Your task to perform on an android device: Search for Italian restaurants on Maps Image 0: 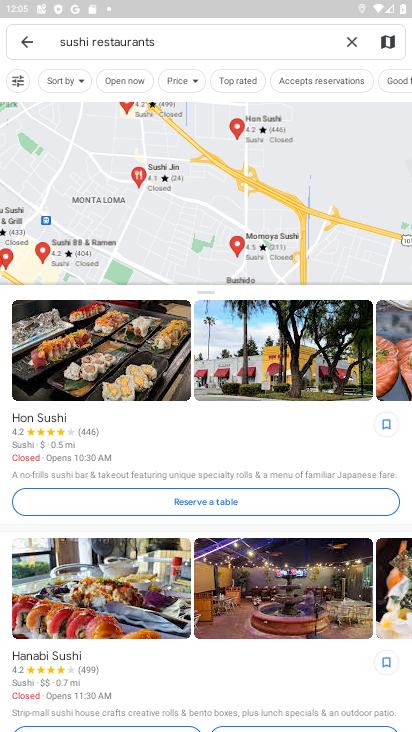
Step 0: click (355, 47)
Your task to perform on an android device: Search for Italian restaurants on Maps Image 1: 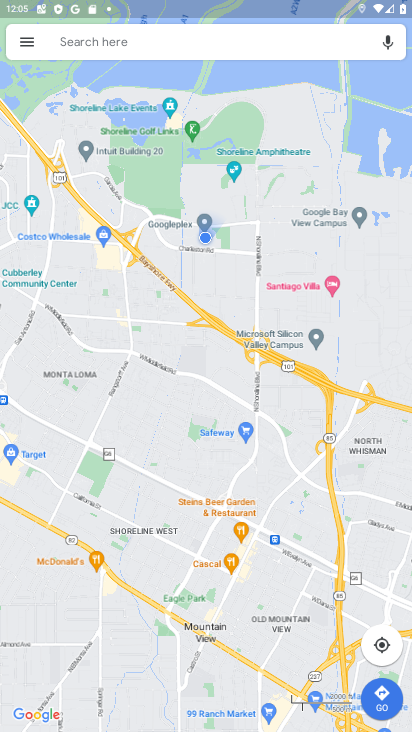
Step 1: click (107, 41)
Your task to perform on an android device: Search for Italian restaurants on Maps Image 2: 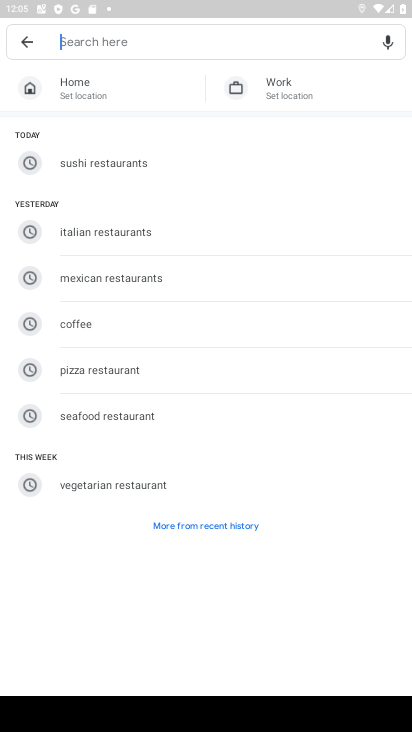
Step 2: type " Italian restaurants "
Your task to perform on an android device: Search for Italian restaurants on Maps Image 3: 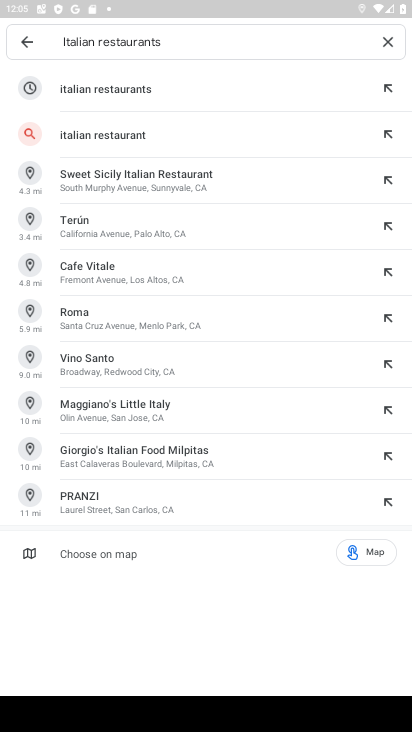
Step 3: click (78, 87)
Your task to perform on an android device: Search for Italian restaurants on Maps Image 4: 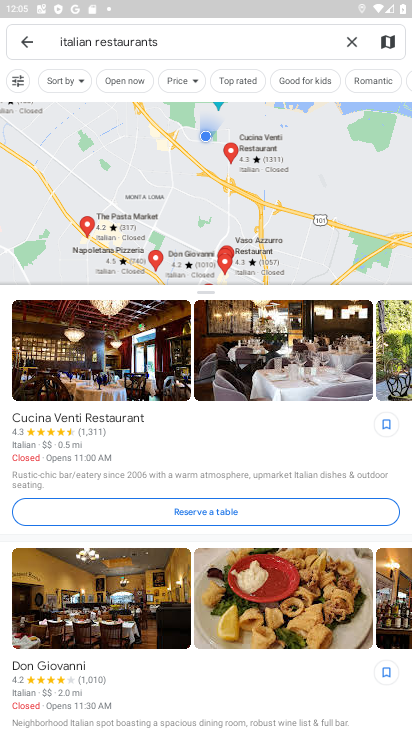
Step 4: task complete